Your task to perform on an android device: open app "DoorDash - Dasher" Image 0: 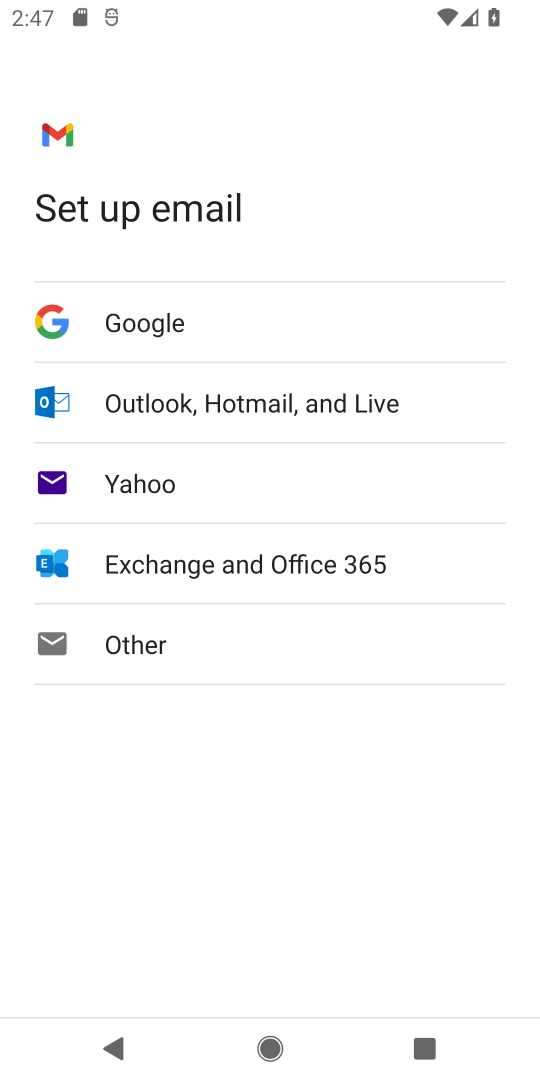
Step 0: press home button
Your task to perform on an android device: open app "DoorDash - Dasher" Image 1: 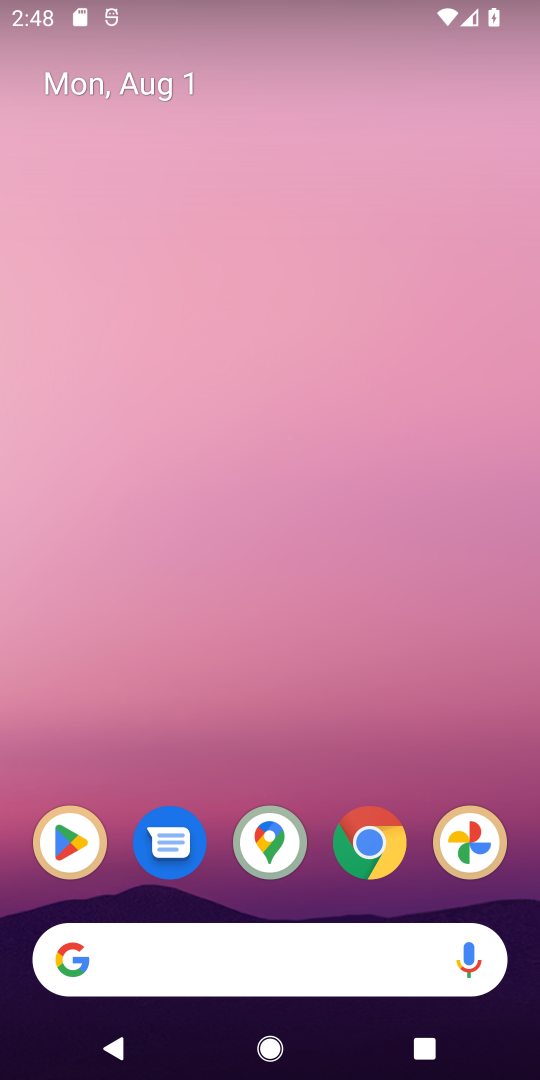
Step 1: click (76, 838)
Your task to perform on an android device: open app "DoorDash - Dasher" Image 2: 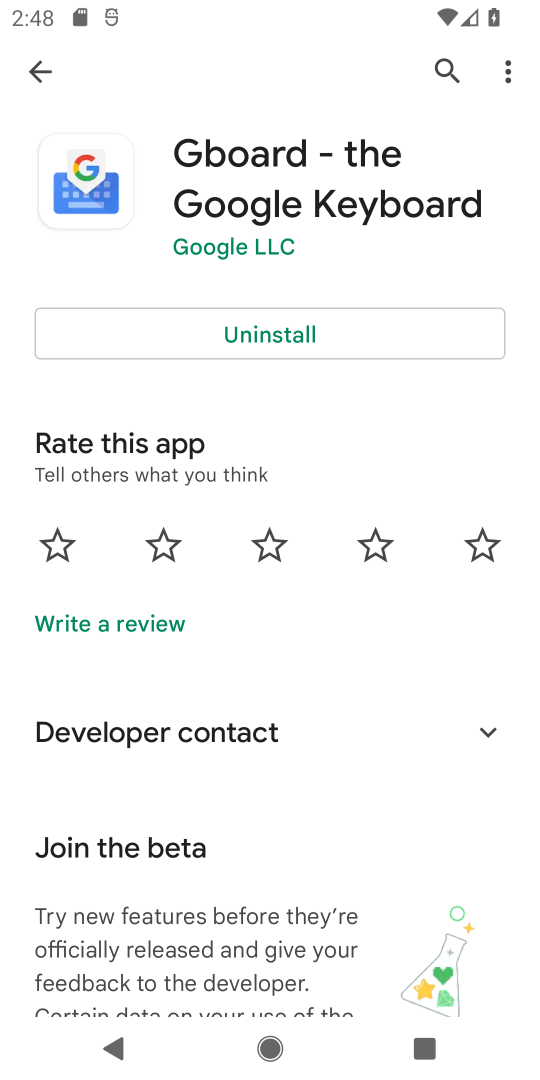
Step 2: click (48, 79)
Your task to perform on an android device: open app "DoorDash - Dasher" Image 3: 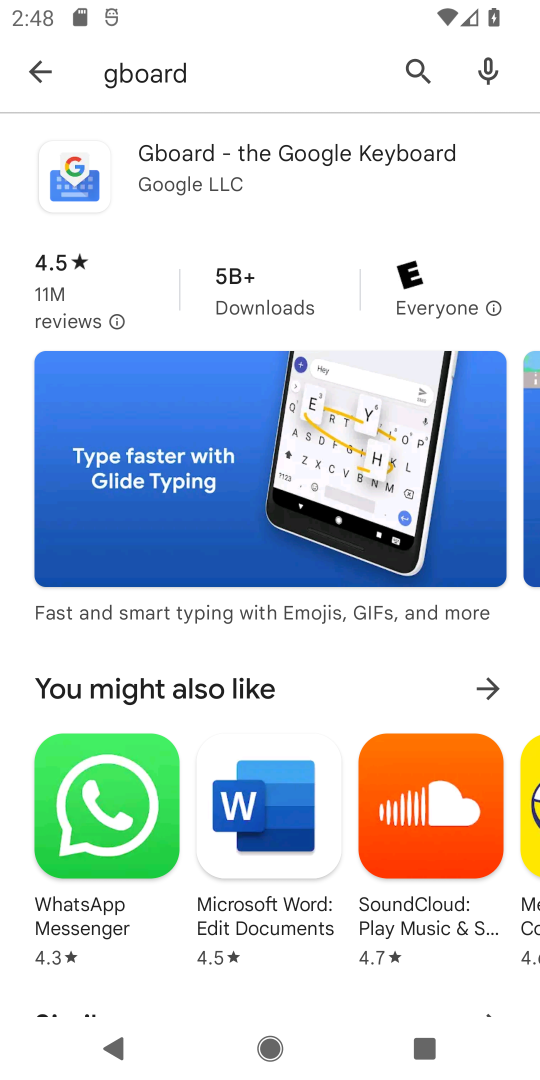
Step 3: click (207, 88)
Your task to perform on an android device: open app "DoorDash - Dasher" Image 4: 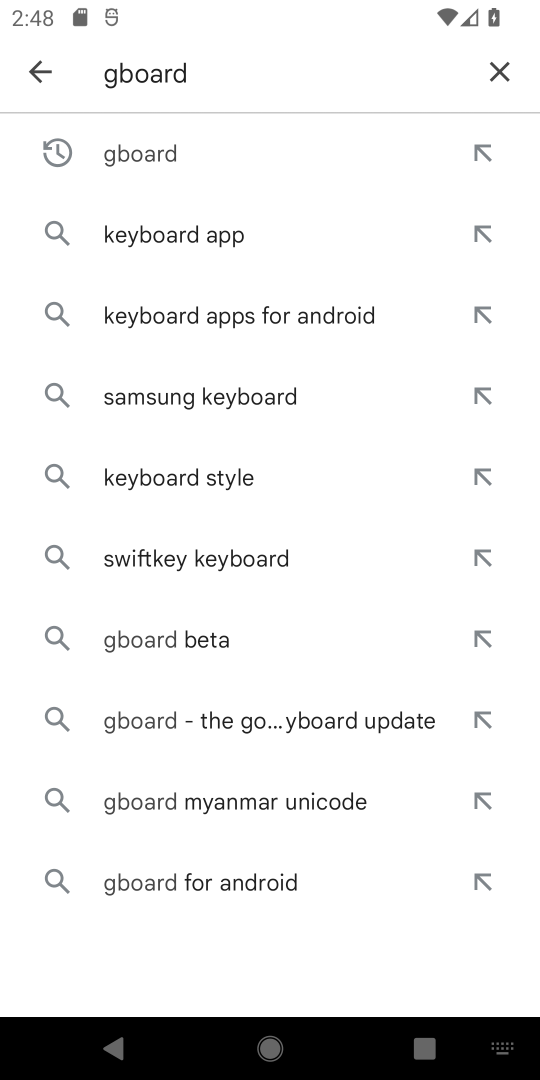
Step 4: click (497, 72)
Your task to perform on an android device: open app "DoorDash - Dasher" Image 5: 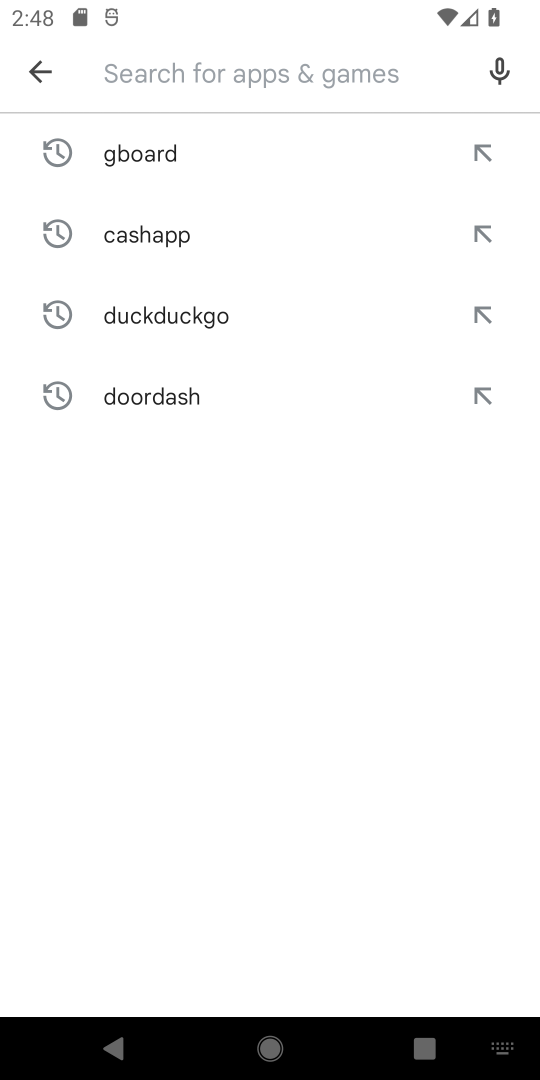
Step 5: type "DoorDash"
Your task to perform on an android device: open app "DoorDash - Dasher" Image 6: 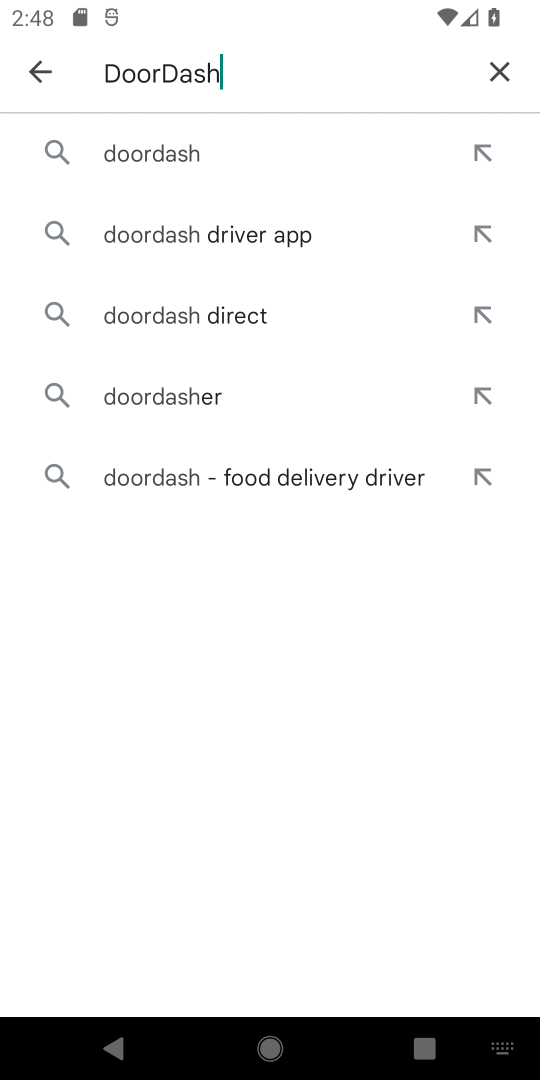
Step 6: click (156, 161)
Your task to perform on an android device: open app "DoorDash - Dasher" Image 7: 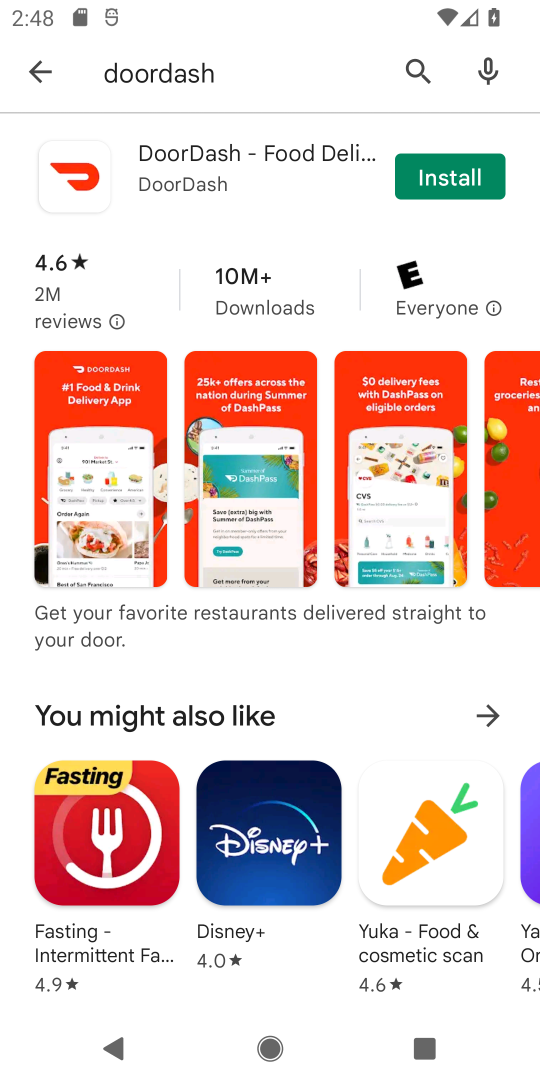
Step 7: click (111, 148)
Your task to perform on an android device: open app "DoorDash - Dasher" Image 8: 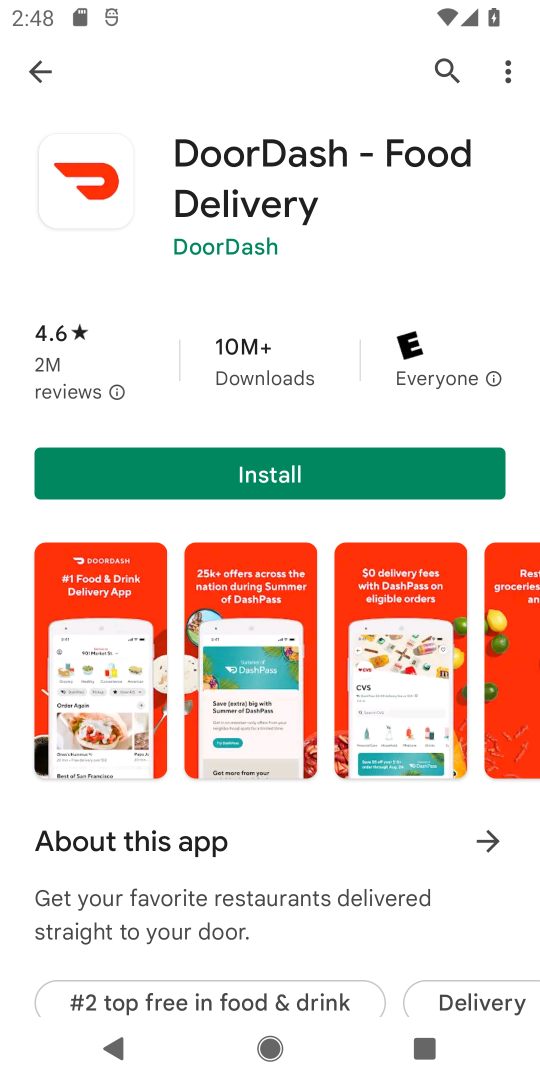
Step 8: task complete